Your task to perform on an android device: turn on the 12-hour format for clock Image 0: 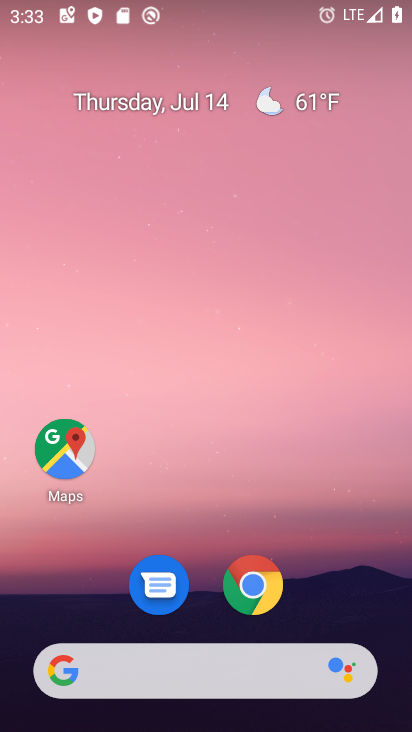
Step 0: drag from (244, 511) to (251, 91)
Your task to perform on an android device: turn on the 12-hour format for clock Image 1: 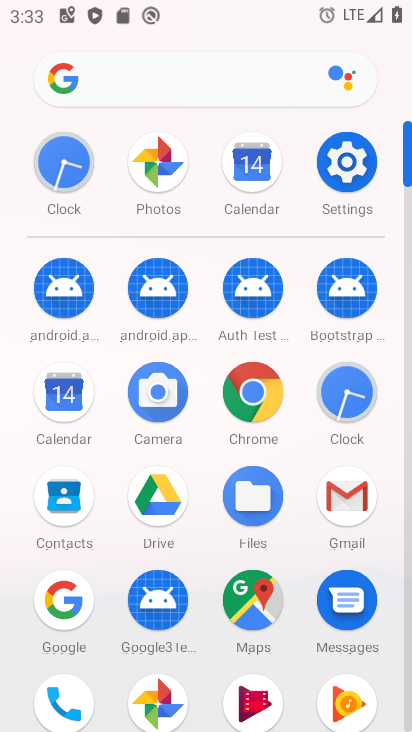
Step 1: click (358, 390)
Your task to perform on an android device: turn on the 12-hour format for clock Image 2: 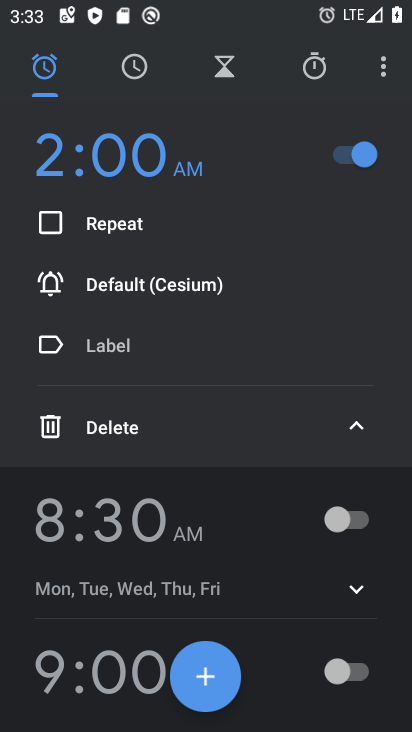
Step 2: click (271, 531)
Your task to perform on an android device: turn on the 12-hour format for clock Image 3: 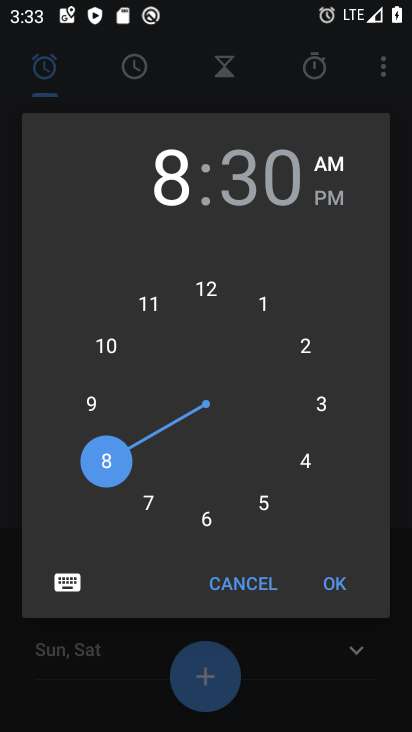
Step 3: click (383, 65)
Your task to perform on an android device: turn on the 12-hour format for clock Image 4: 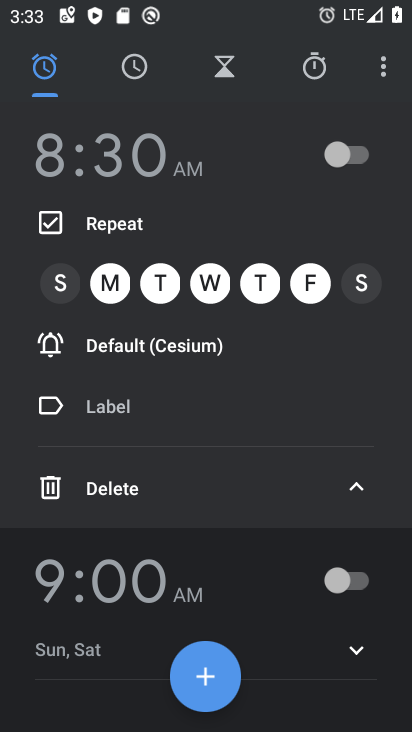
Step 4: click (383, 65)
Your task to perform on an android device: turn on the 12-hour format for clock Image 5: 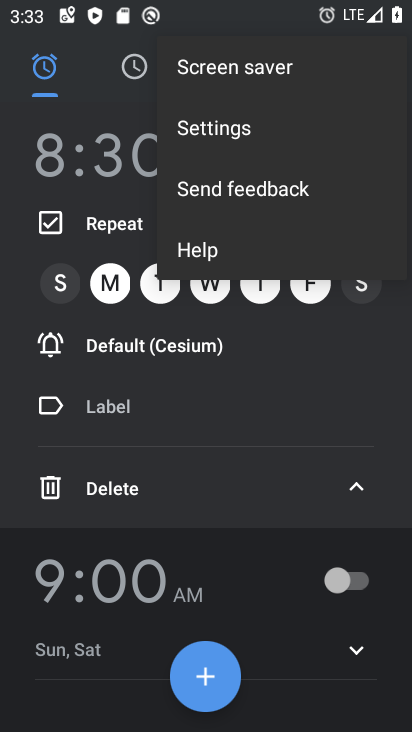
Step 5: click (277, 121)
Your task to perform on an android device: turn on the 12-hour format for clock Image 6: 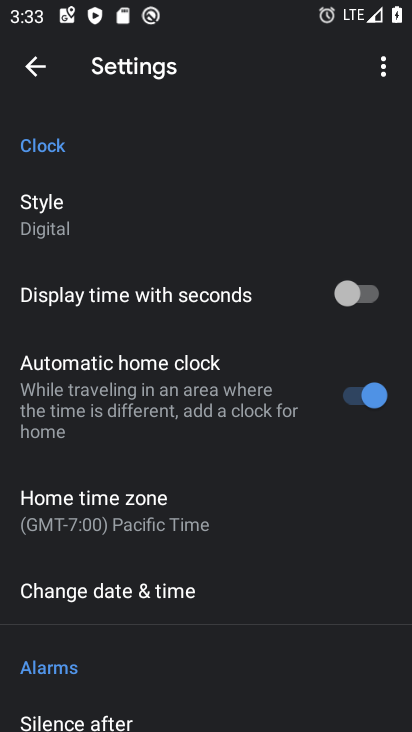
Step 6: click (244, 598)
Your task to perform on an android device: turn on the 12-hour format for clock Image 7: 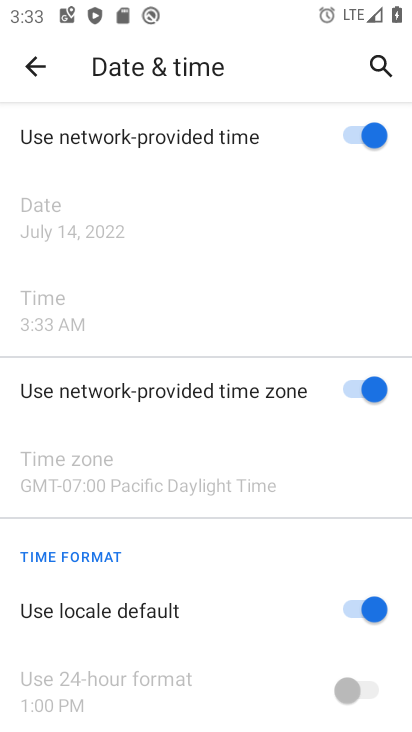
Step 7: task complete